Your task to perform on an android device: open device folders in google photos Image 0: 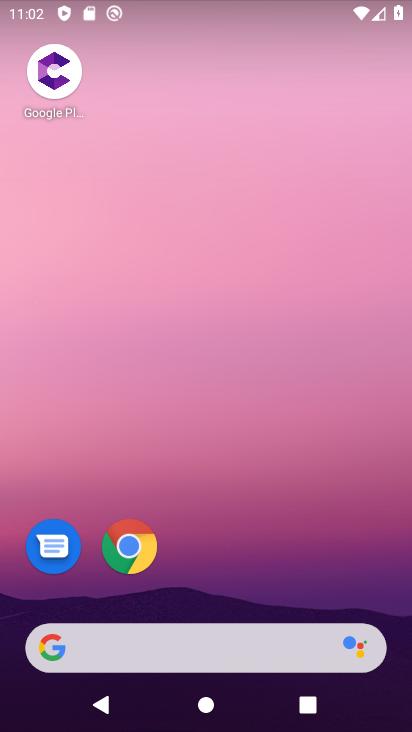
Step 0: drag from (207, 610) to (282, 23)
Your task to perform on an android device: open device folders in google photos Image 1: 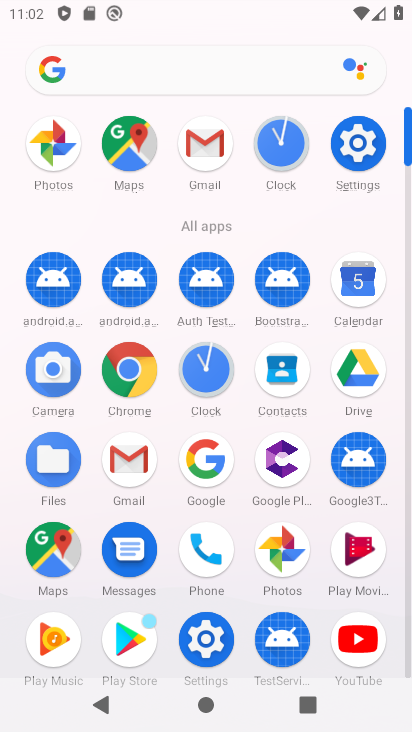
Step 1: click (281, 526)
Your task to perform on an android device: open device folders in google photos Image 2: 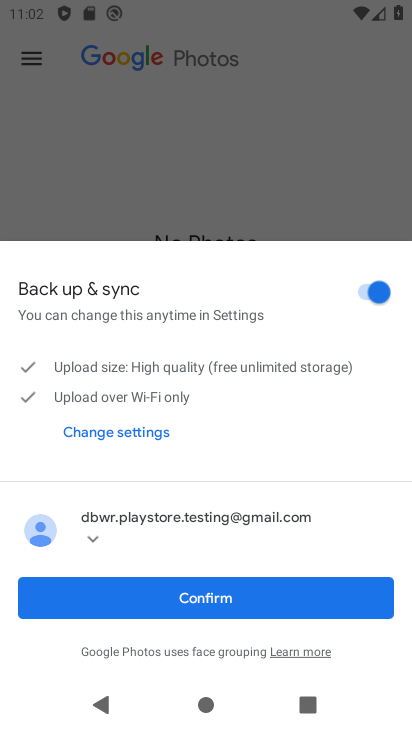
Step 2: click (207, 583)
Your task to perform on an android device: open device folders in google photos Image 3: 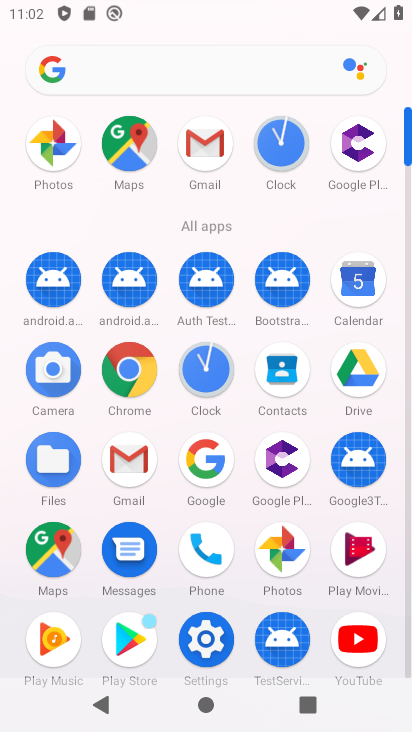
Step 3: click (278, 564)
Your task to perform on an android device: open device folders in google photos Image 4: 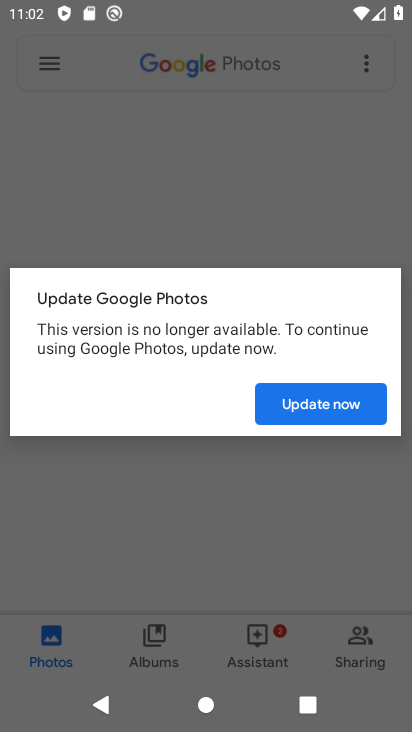
Step 4: click (170, 592)
Your task to perform on an android device: open device folders in google photos Image 5: 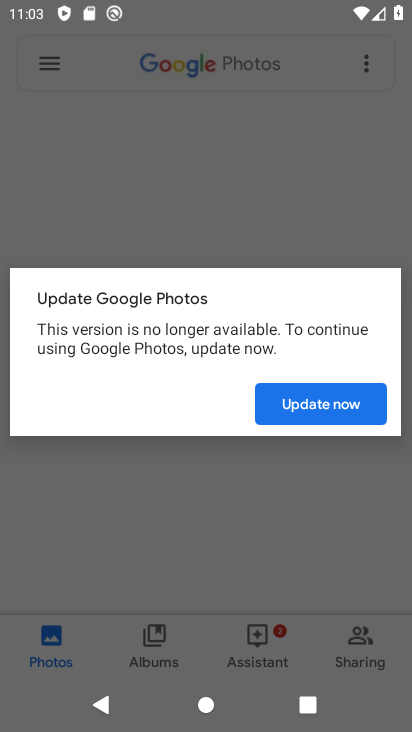
Step 5: click (324, 414)
Your task to perform on an android device: open device folders in google photos Image 6: 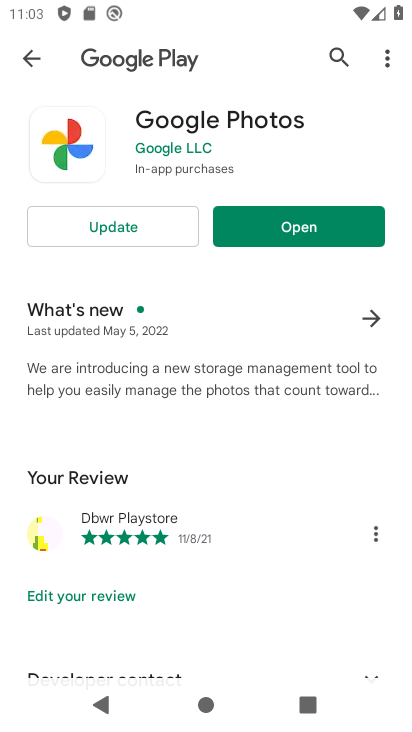
Step 6: click (298, 213)
Your task to perform on an android device: open device folders in google photos Image 7: 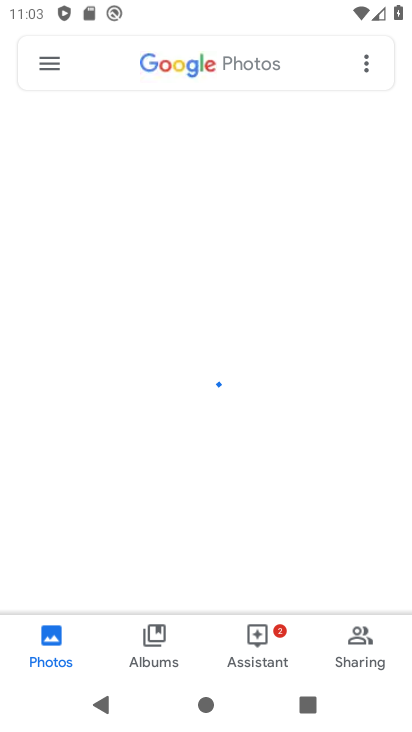
Step 7: click (40, 72)
Your task to perform on an android device: open device folders in google photos Image 8: 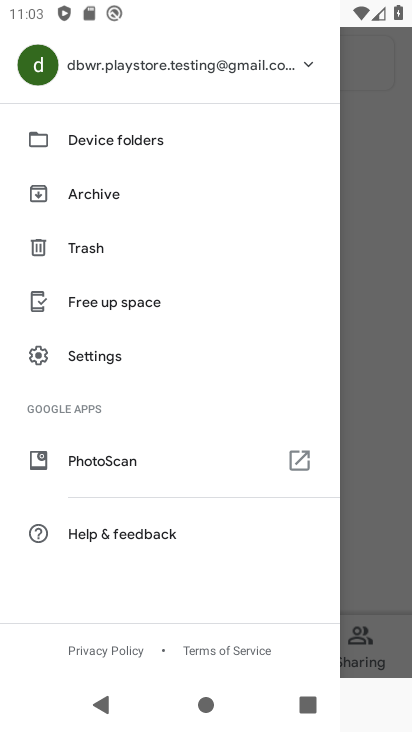
Step 8: click (92, 138)
Your task to perform on an android device: open device folders in google photos Image 9: 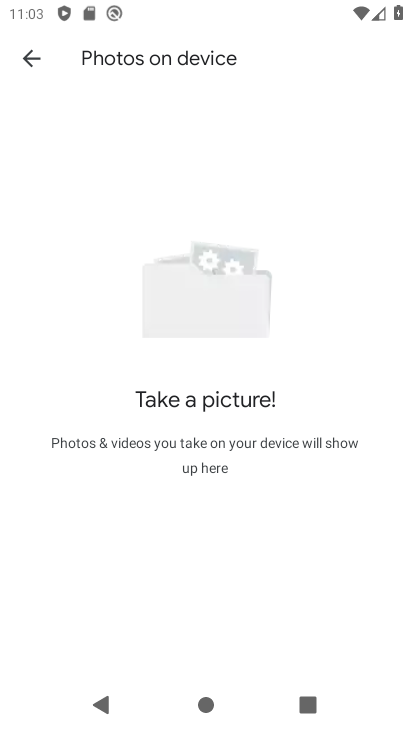
Step 9: task complete